Your task to perform on an android device: Search for "macbook pro 13 inch" on walmart, select the first entry, and add it to the cart. Image 0: 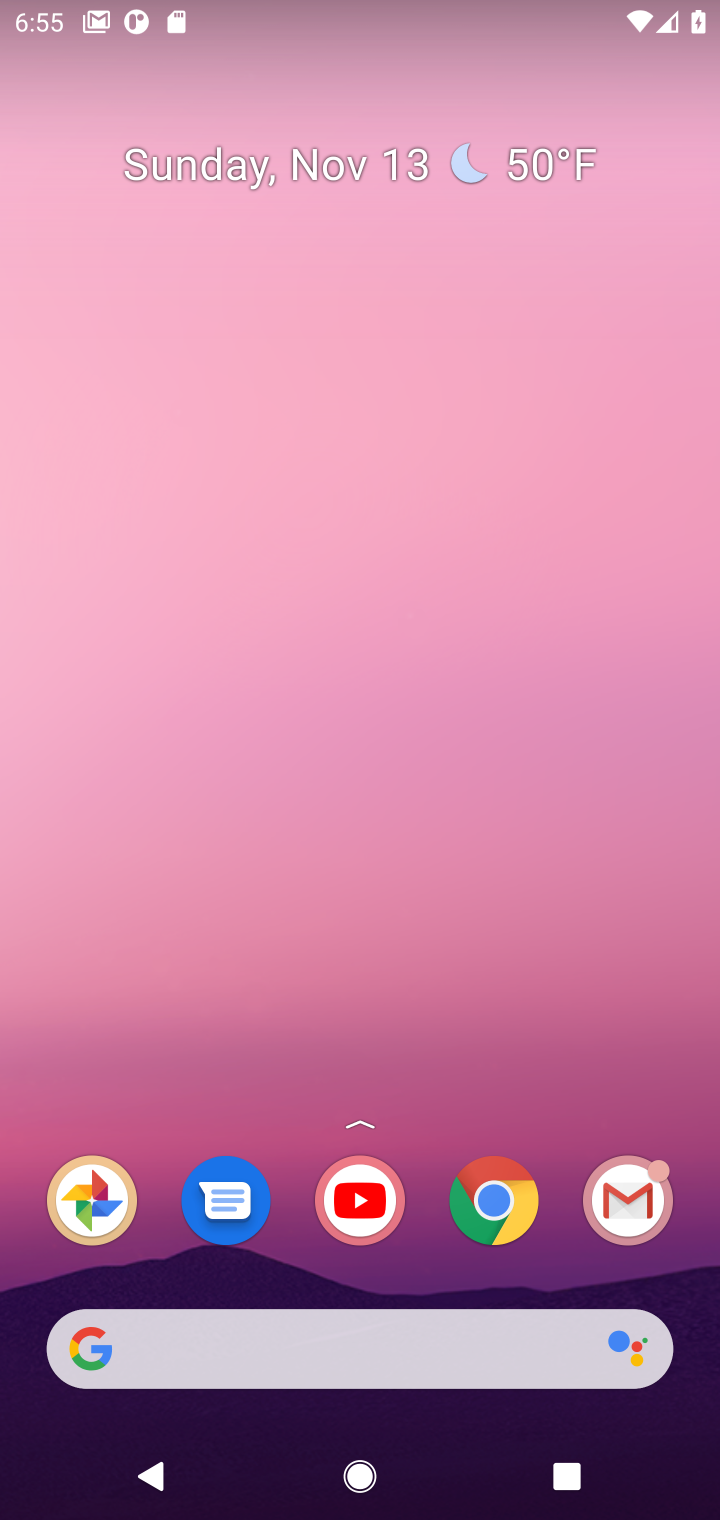
Step 0: click (491, 1220)
Your task to perform on an android device: Search for "macbook pro 13 inch" on walmart, select the first entry, and add it to the cart. Image 1: 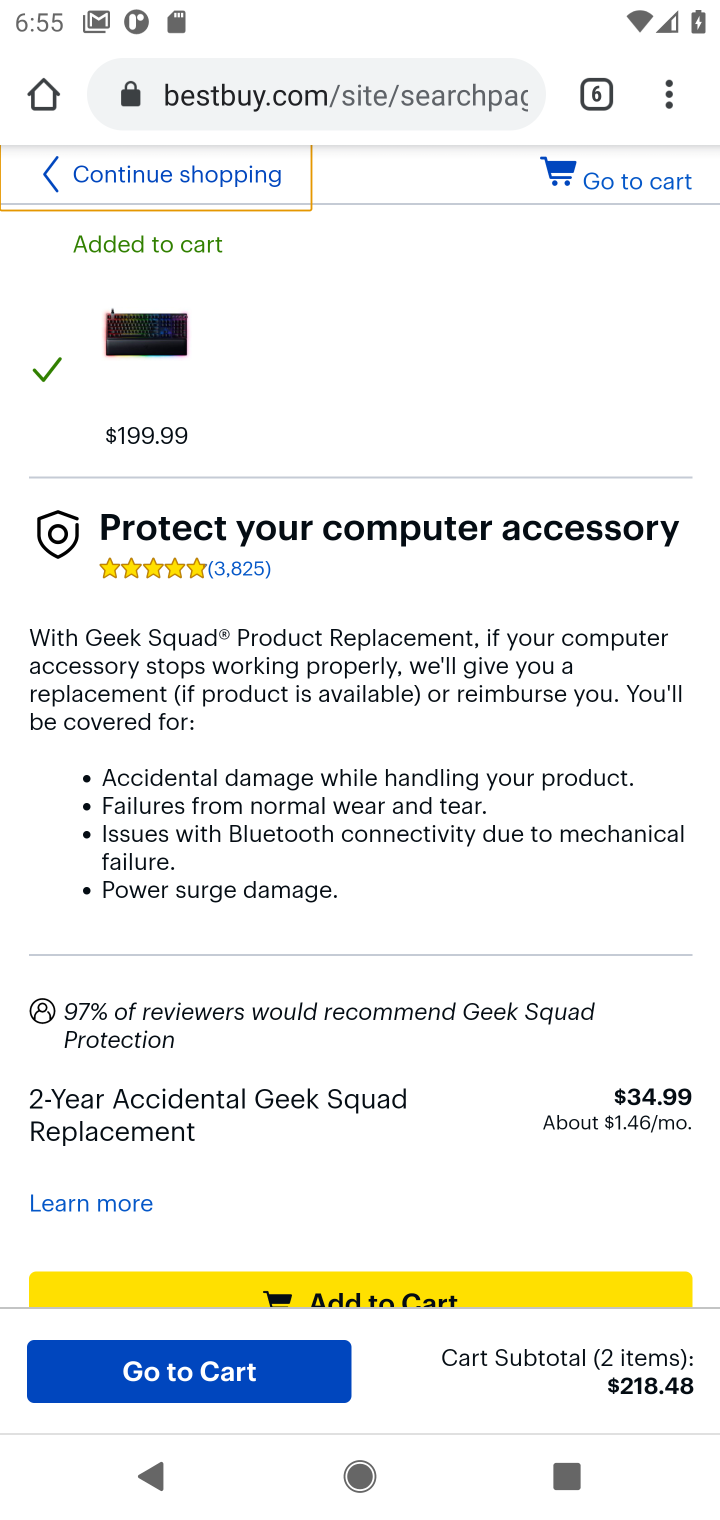
Step 1: click (602, 103)
Your task to perform on an android device: Search for "macbook pro 13 inch" on walmart, select the first entry, and add it to the cart. Image 2: 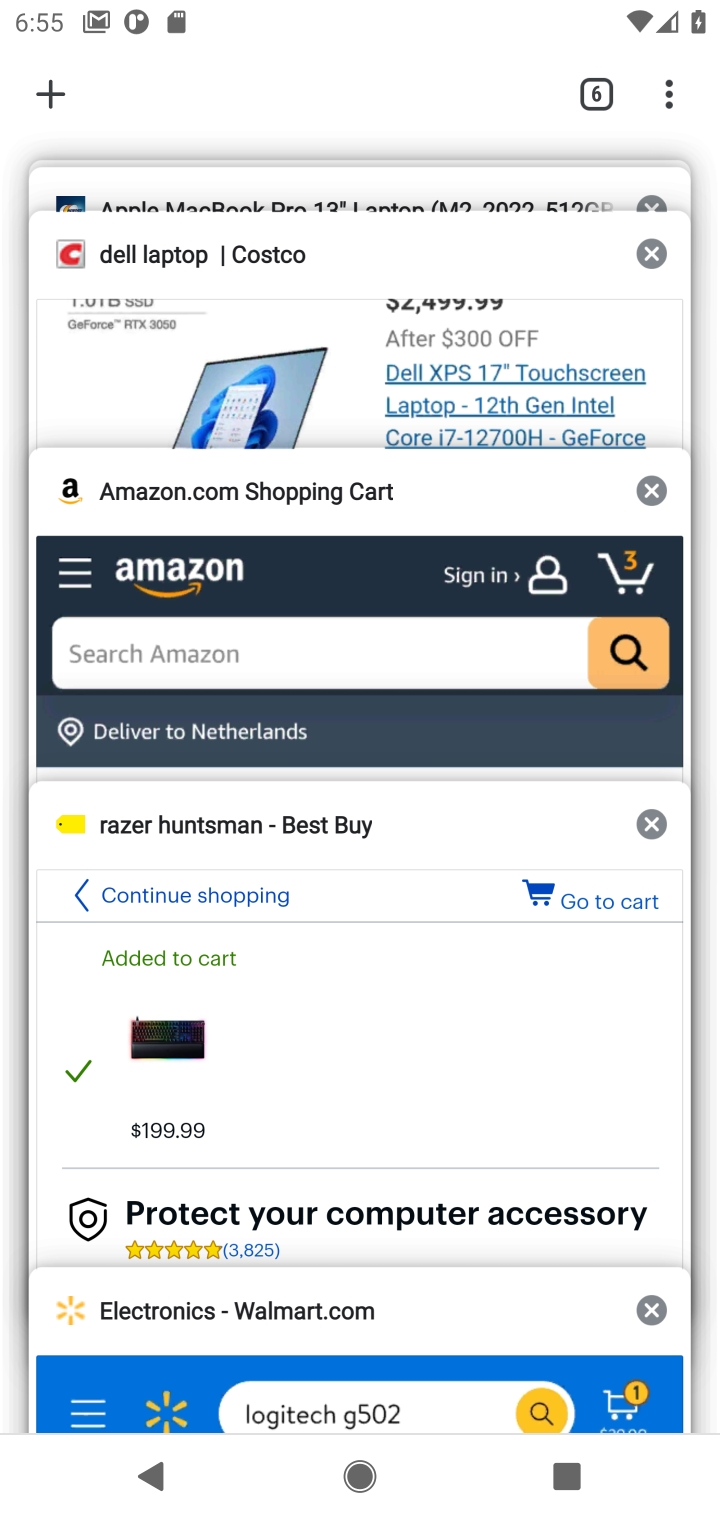
Step 2: click (186, 1359)
Your task to perform on an android device: Search for "macbook pro 13 inch" on walmart, select the first entry, and add it to the cart. Image 3: 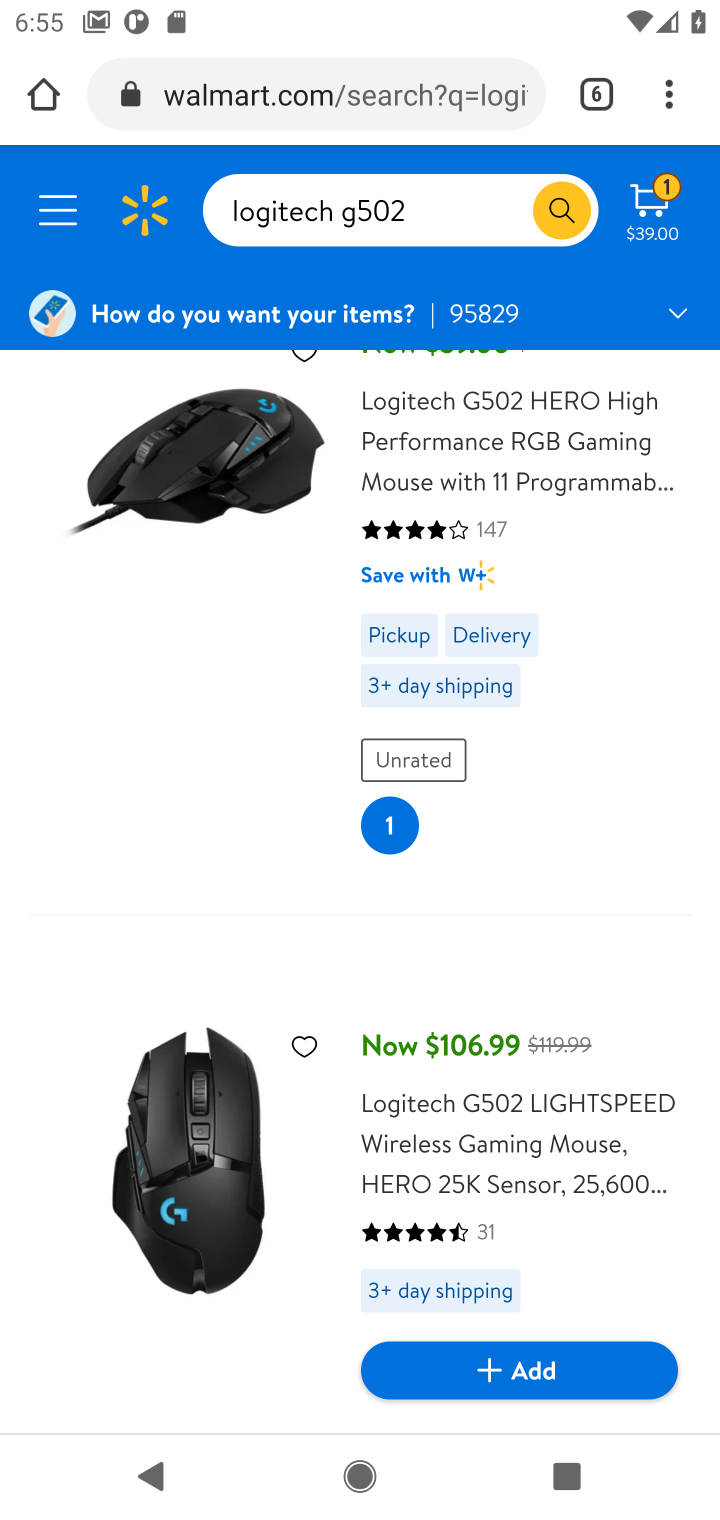
Step 3: click (438, 171)
Your task to perform on an android device: Search for "macbook pro 13 inch" on walmart, select the first entry, and add it to the cart. Image 4: 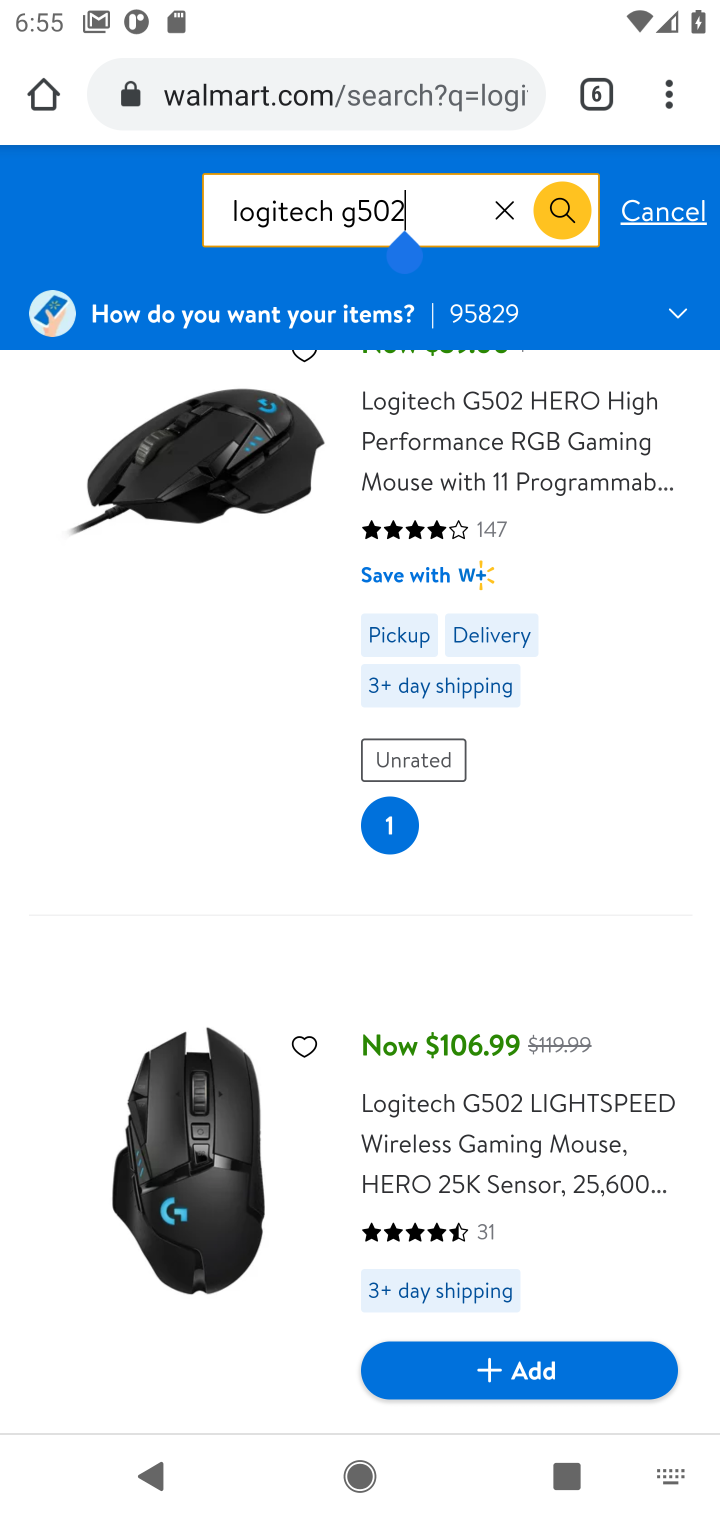
Step 4: click (443, 213)
Your task to perform on an android device: Search for "macbook pro 13 inch" on walmart, select the first entry, and add it to the cart. Image 5: 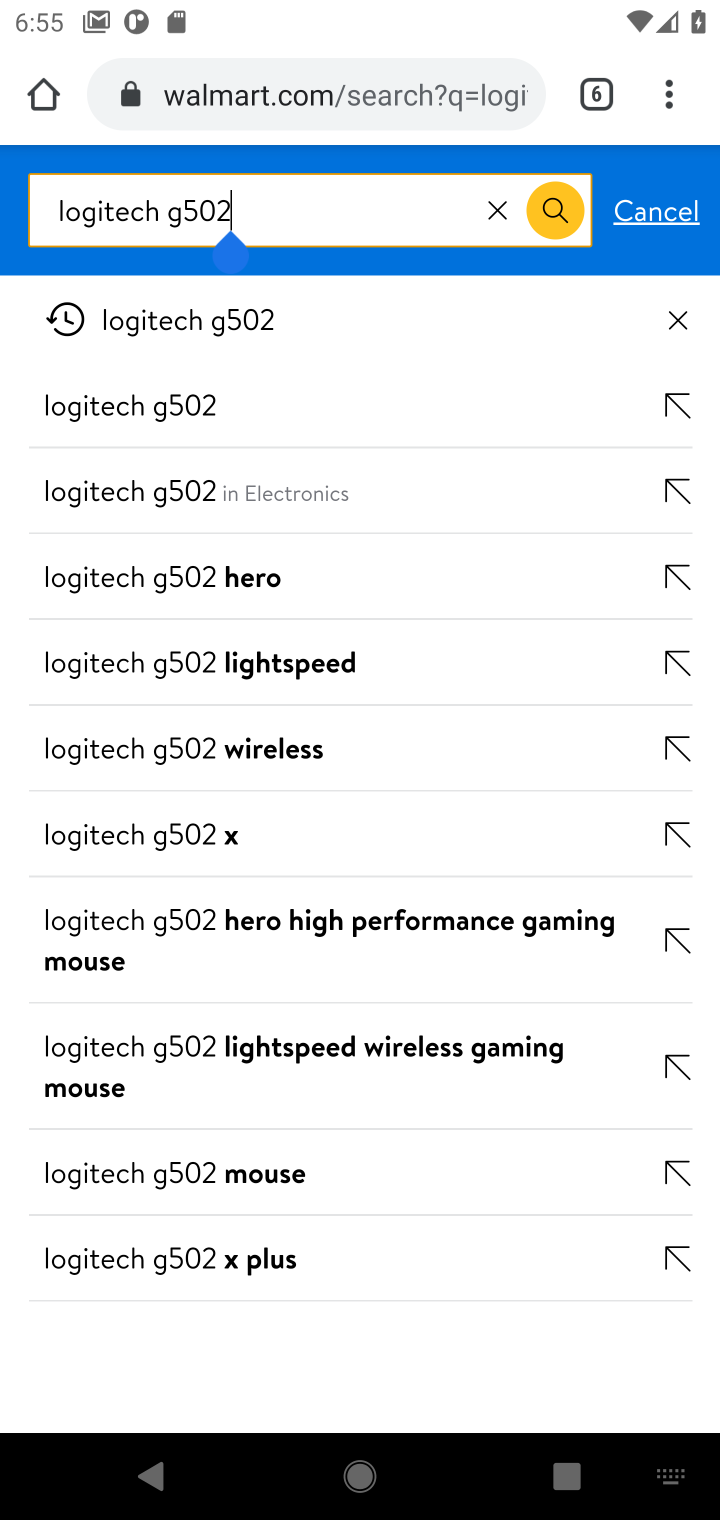
Step 5: click (499, 203)
Your task to perform on an android device: Search for "macbook pro 13 inch" on walmart, select the first entry, and add it to the cart. Image 6: 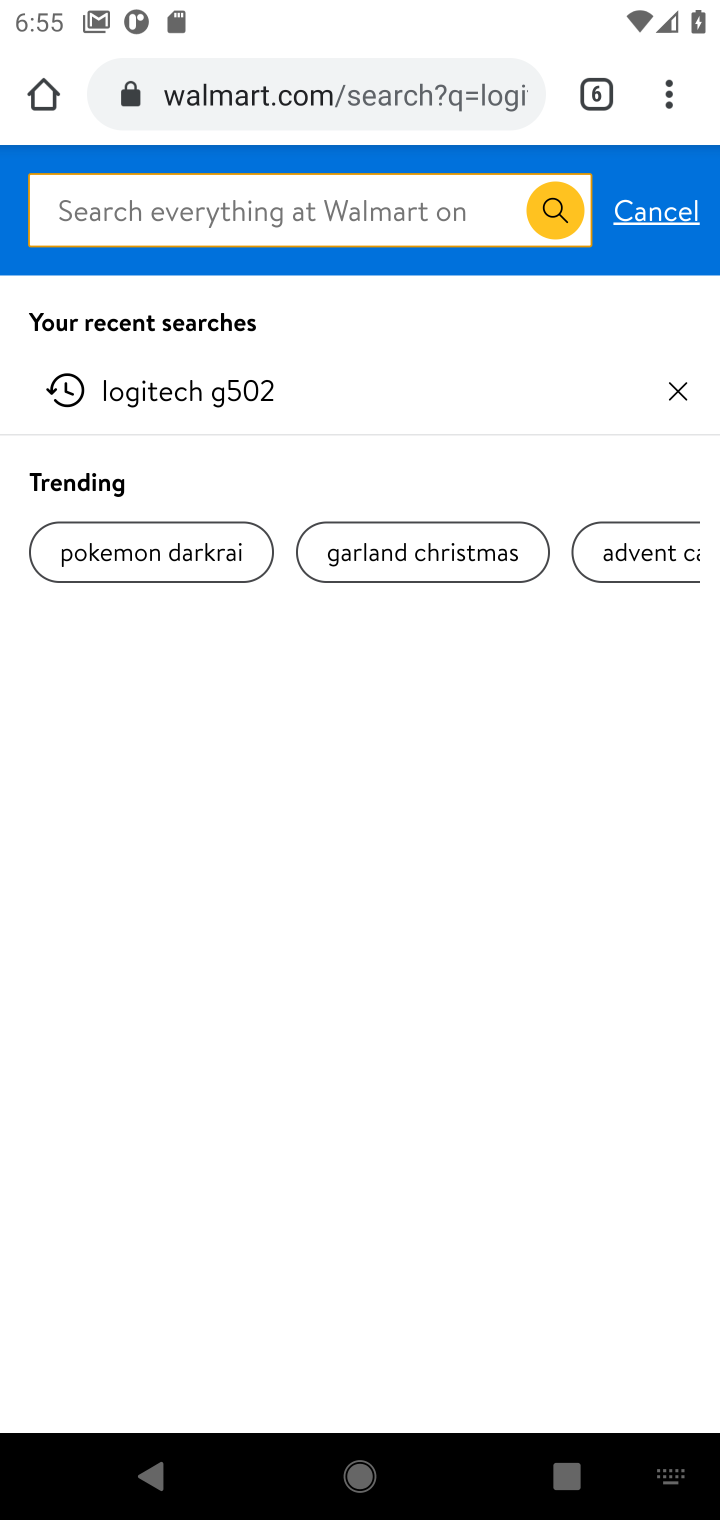
Step 6: type "macbook pro 13 inch"
Your task to perform on an android device: Search for "macbook pro 13 inch" on walmart, select the first entry, and add it to the cart. Image 7: 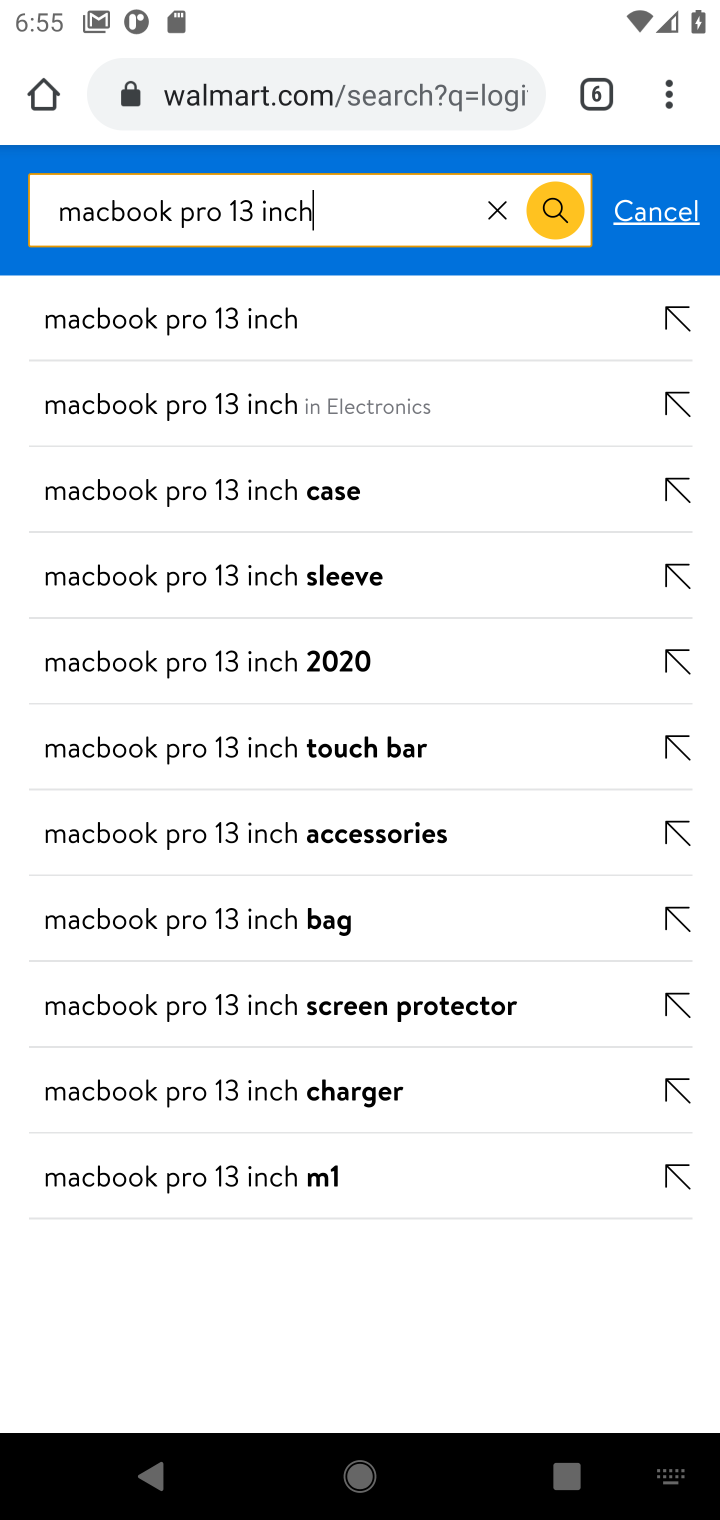
Step 7: click (237, 393)
Your task to perform on an android device: Search for "macbook pro 13 inch" on walmart, select the first entry, and add it to the cart. Image 8: 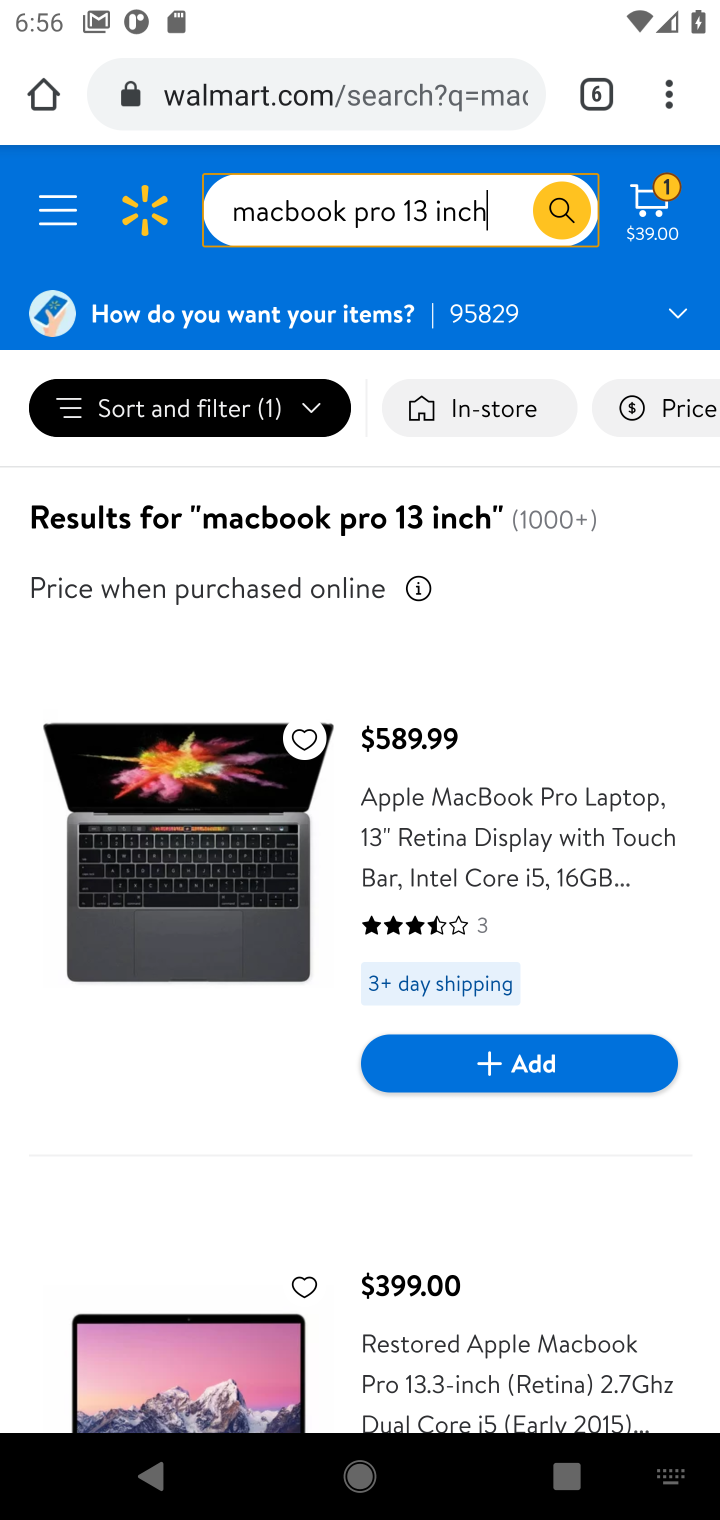
Step 8: drag from (220, 1209) to (403, 712)
Your task to perform on an android device: Search for "macbook pro 13 inch" on walmart, select the first entry, and add it to the cart. Image 9: 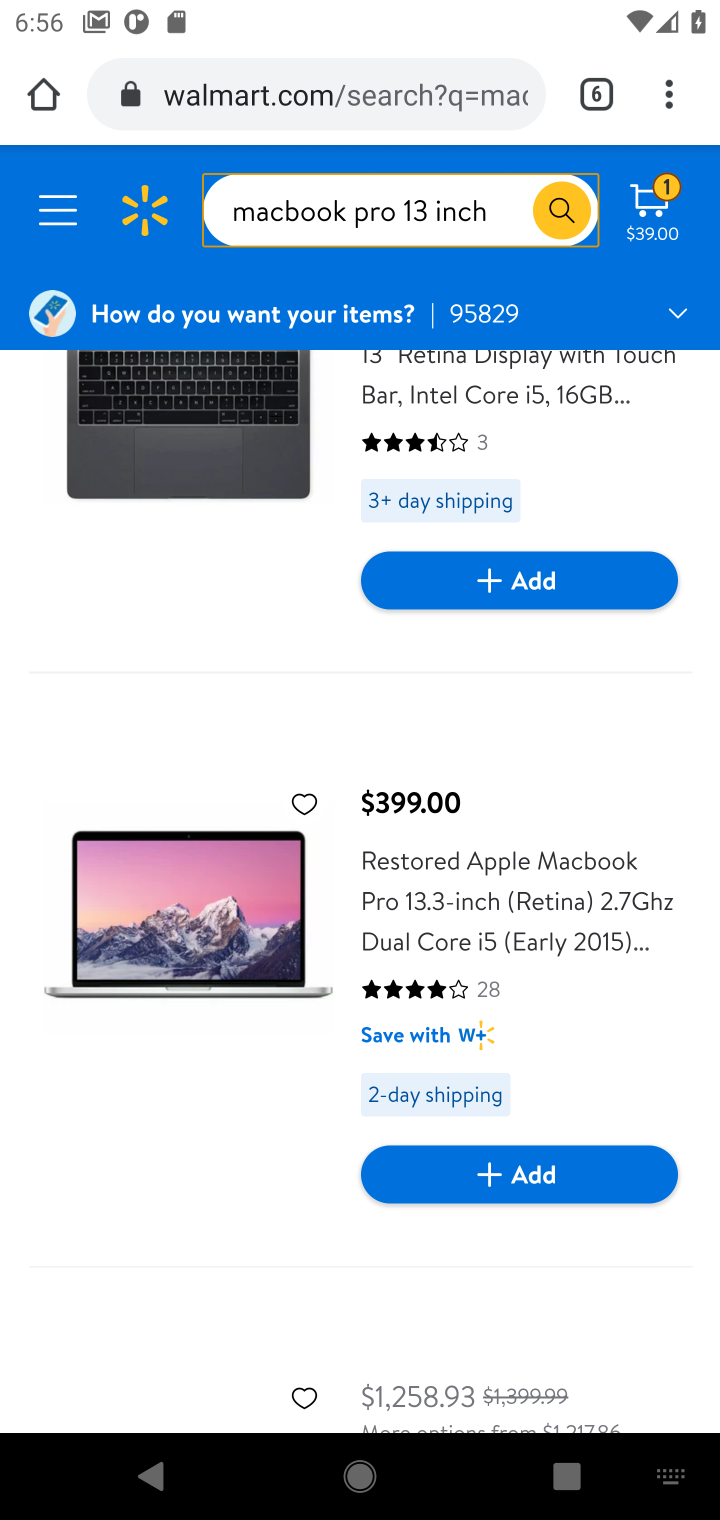
Step 9: click (562, 572)
Your task to perform on an android device: Search for "macbook pro 13 inch" on walmart, select the first entry, and add it to the cart. Image 10: 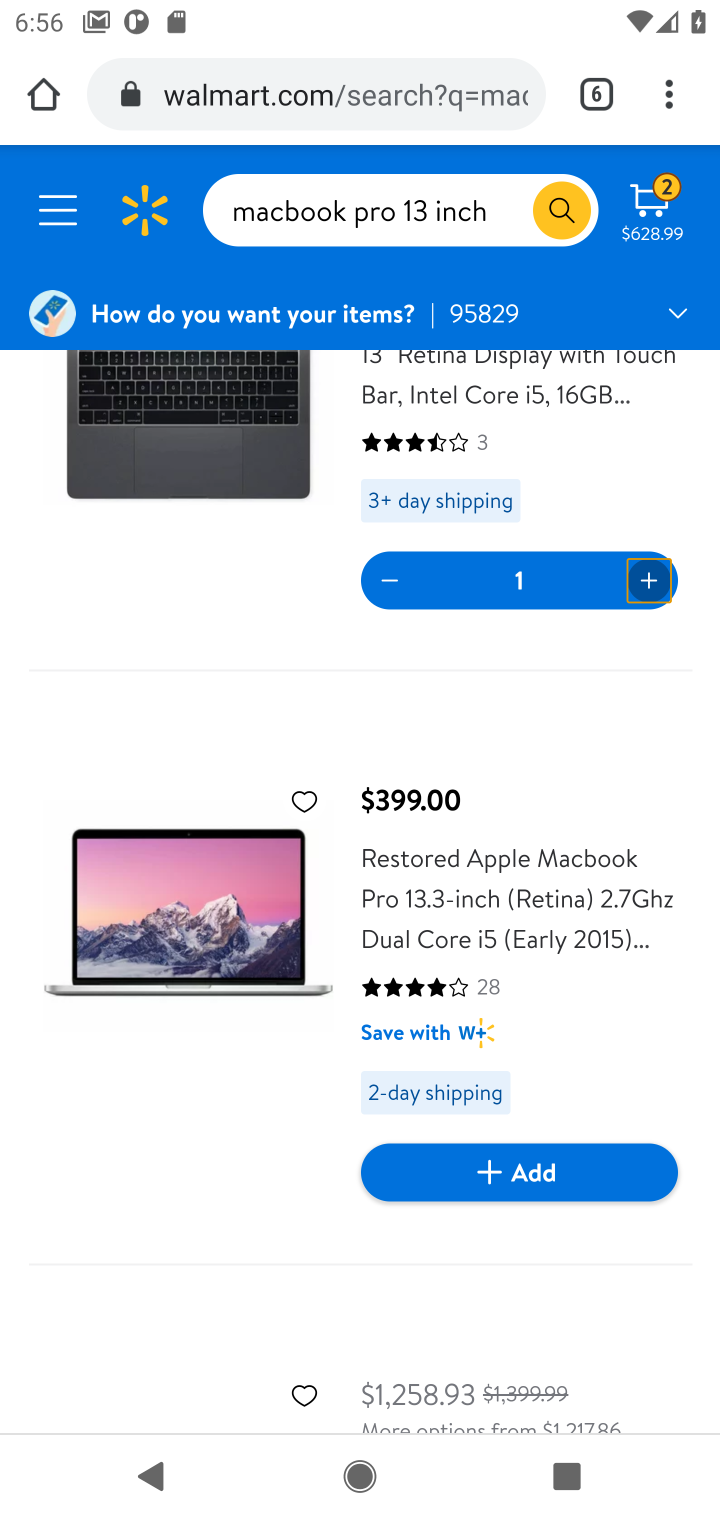
Step 10: task complete